Your task to perform on an android device: Search for Italian restaurants on Maps Image 0: 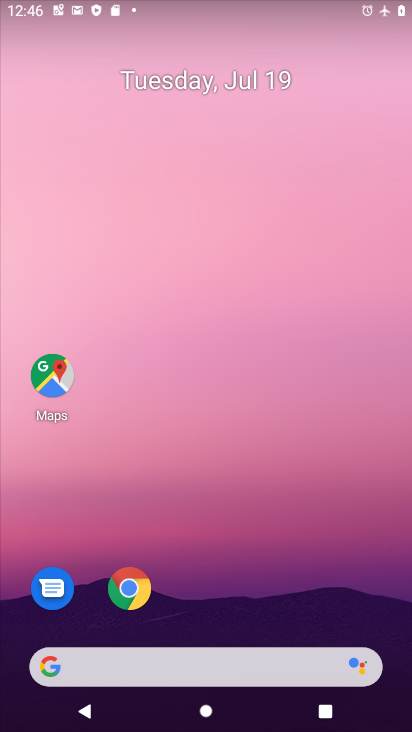
Step 0: drag from (374, 633) to (146, 48)
Your task to perform on an android device: Search for Italian restaurants on Maps Image 1: 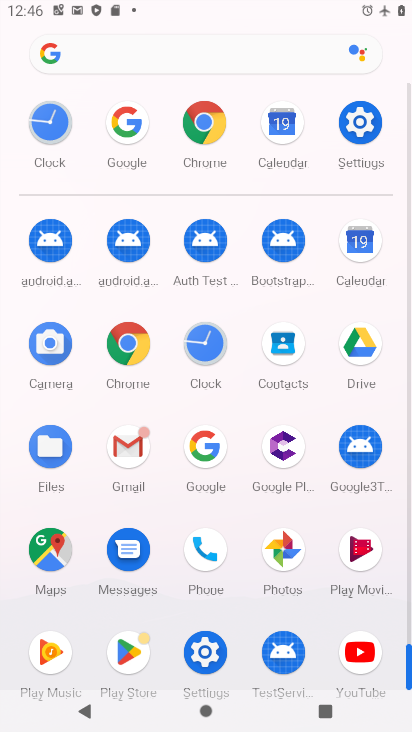
Step 1: click (45, 555)
Your task to perform on an android device: Search for Italian restaurants on Maps Image 2: 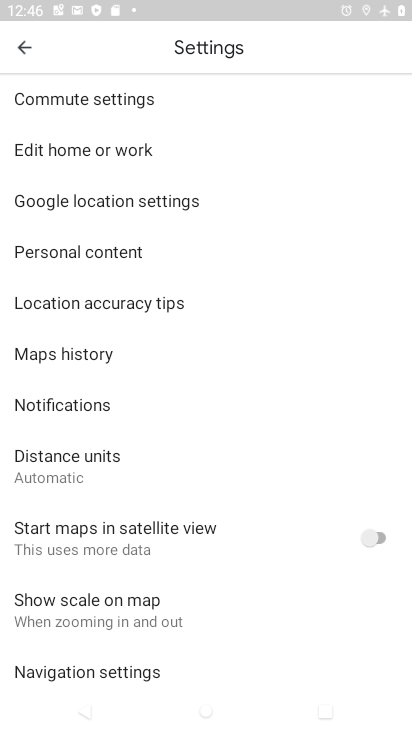
Step 2: press home button
Your task to perform on an android device: Search for Italian restaurants on Maps Image 3: 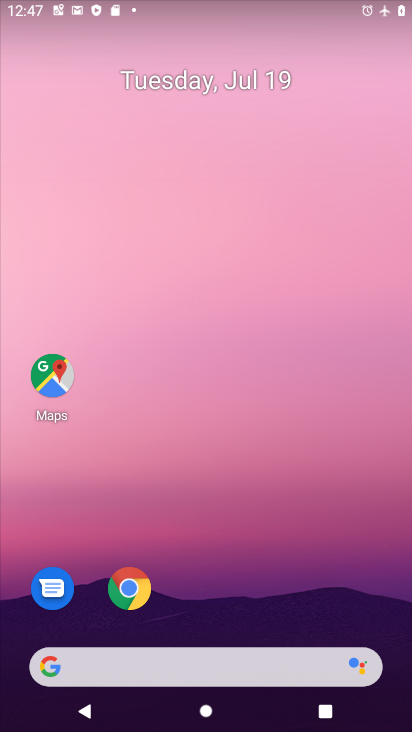
Step 3: drag from (394, 660) to (166, 83)
Your task to perform on an android device: Search for Italian restaurants on Maps Image 4: 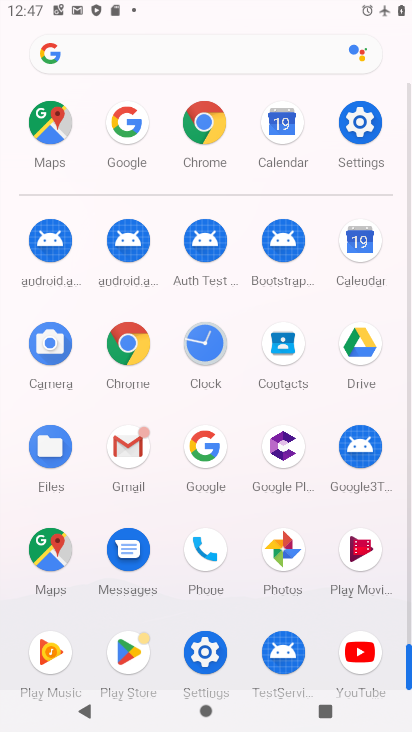
Step 4: click (57, 562)
Your task to perform on an android device: Search for Italian restaurants on Maps Image 5: 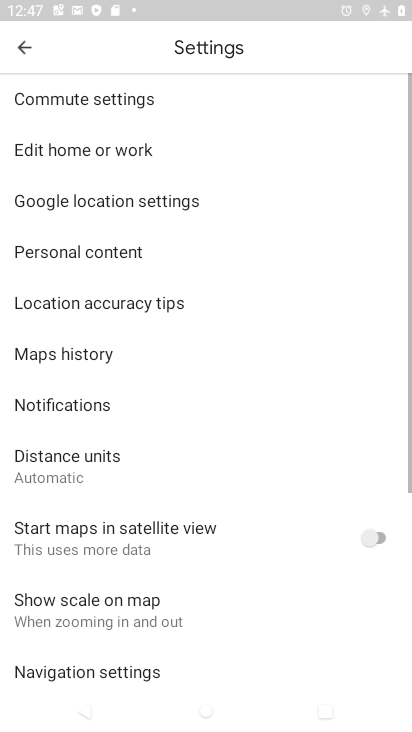
Step 5: press back button
Your task to perform on an android device: Search for Italian restaurants on Maps Image 6: 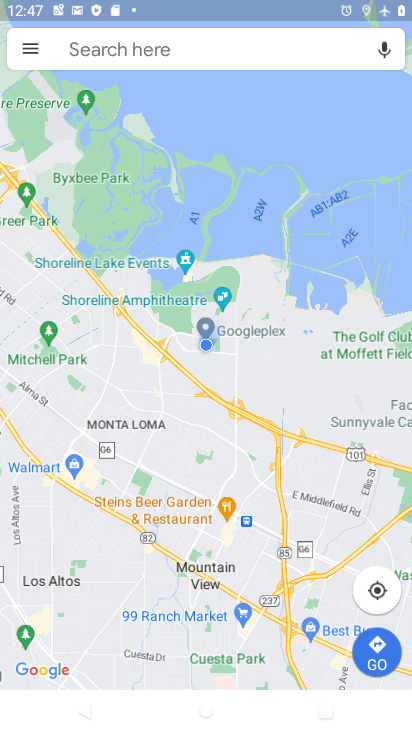
Step 6: click (130, 40)
Your task to perform on an android device: Search for Italian restaurants on Maps Image 7: 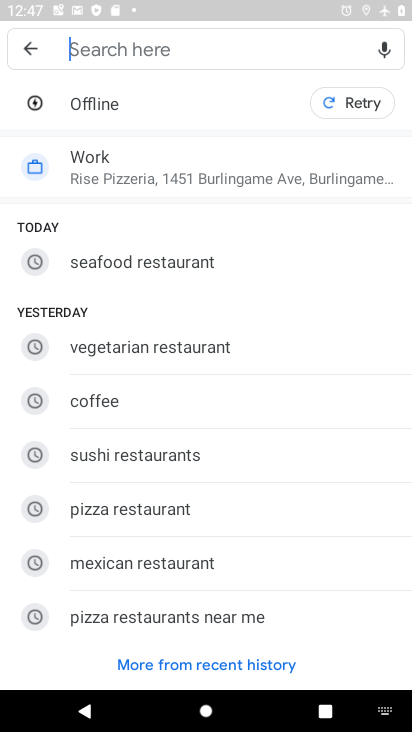
Step 7: type "Italian restaurants"
Your task to perform on an android device: Search for Italian restaurants on Maps Image 8: 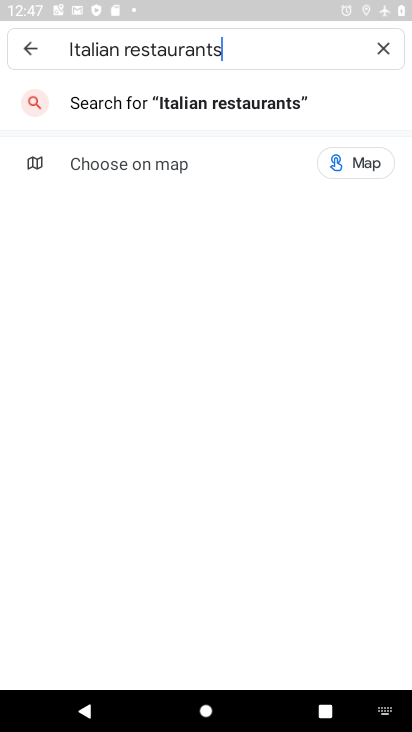
Step 8: task complete